Your task to perform on an android device: Open Chrome and go to settings Image 0: 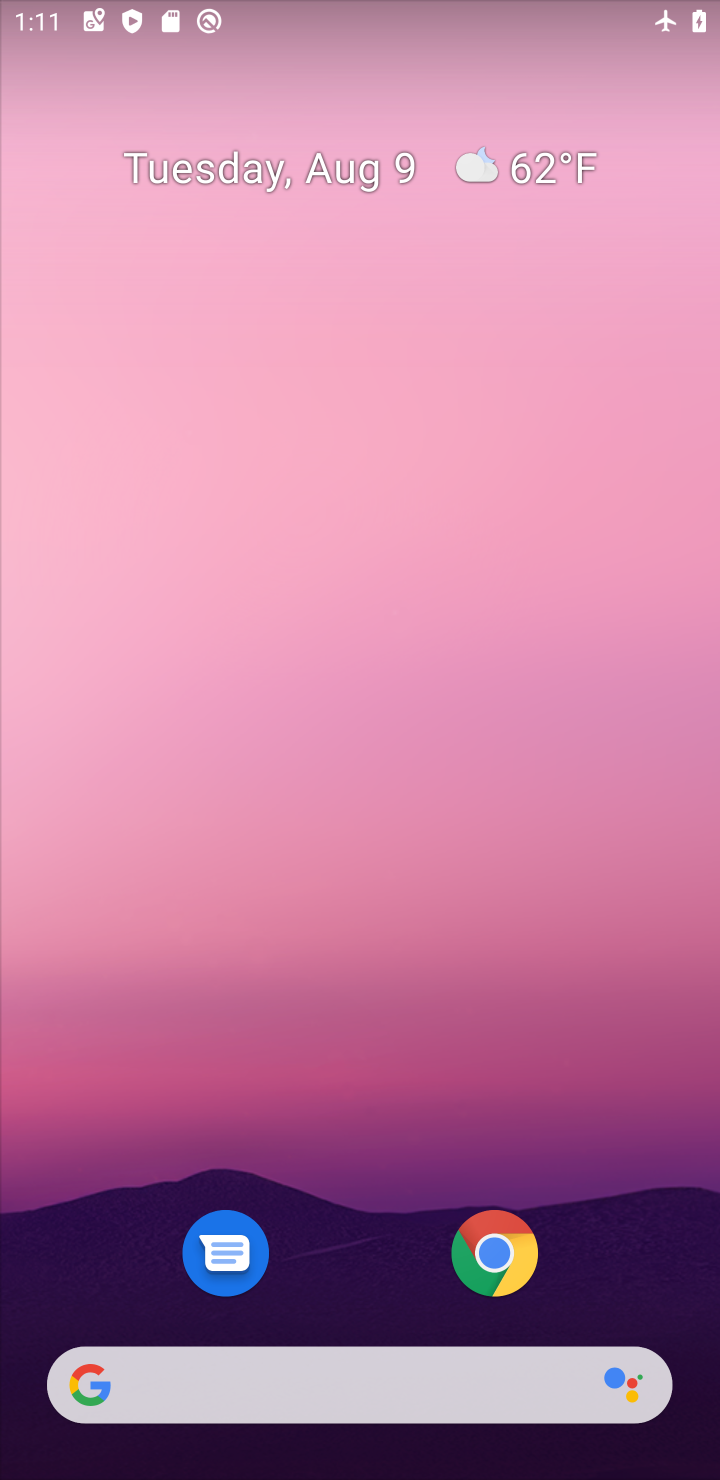
Step 0: drag from (564, 806) to (394, 17)
Your task to perform on an android device: Open Chrome and go to settings Image 1: 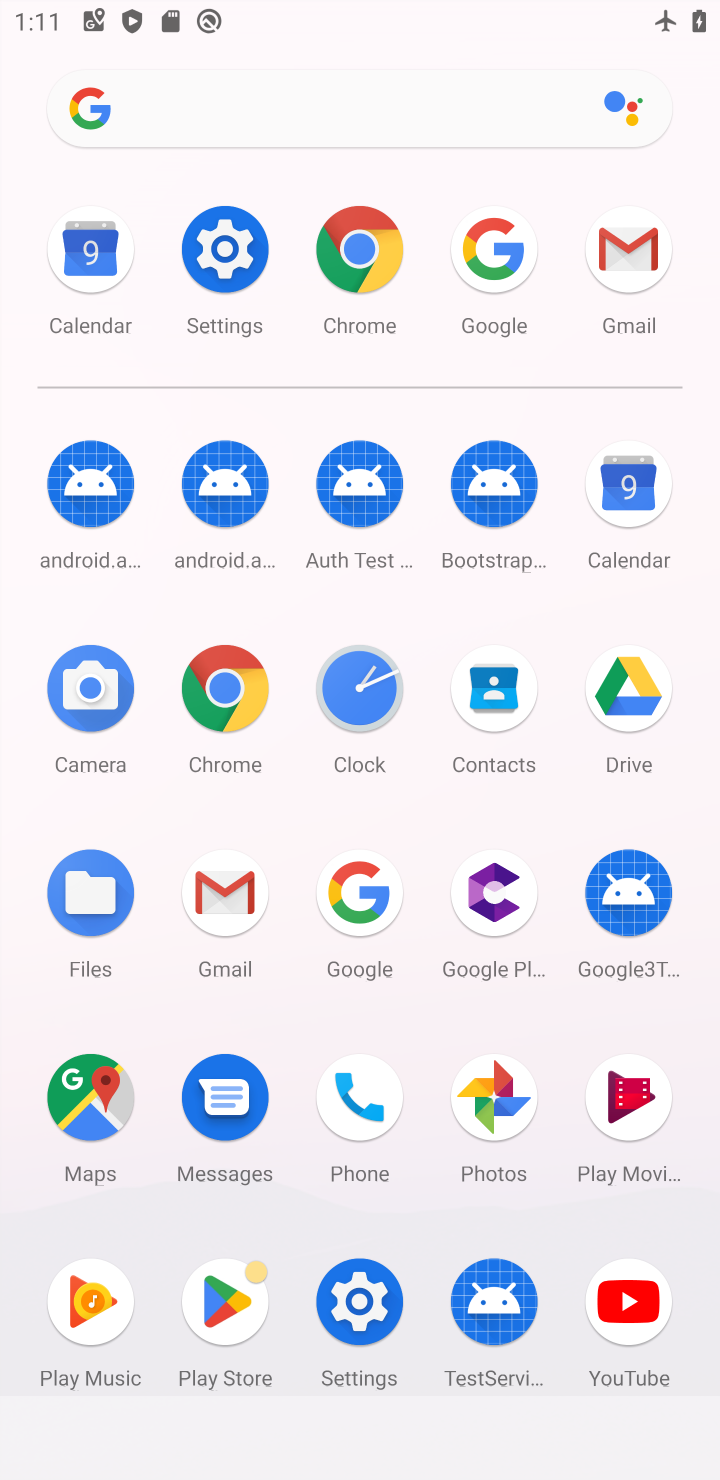
Step 1: click (359, 262)
Your task to perform on an android device: Open Chrome and go to settings Image 2: 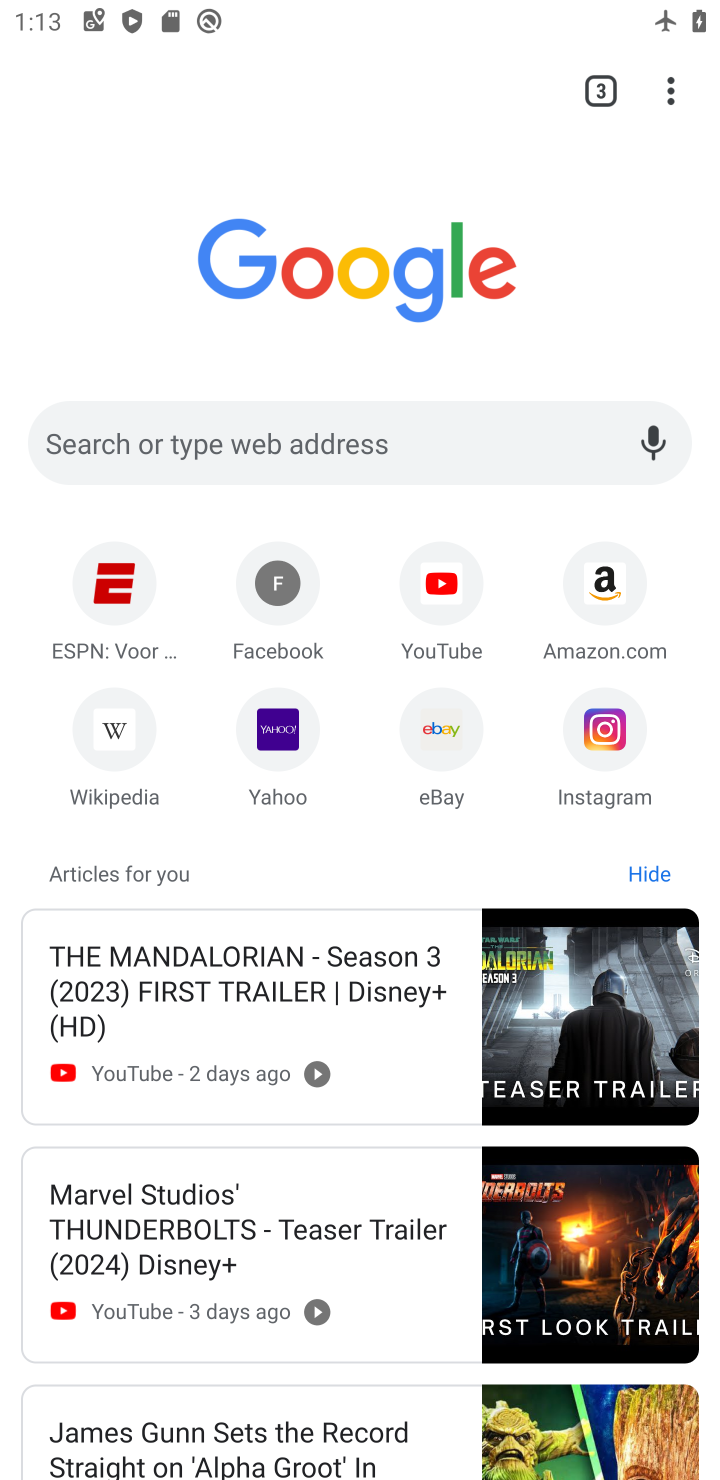
Step 2: click (671, 83)
Your task to perform on an android device: Open Chrome and go to settings Image 3: 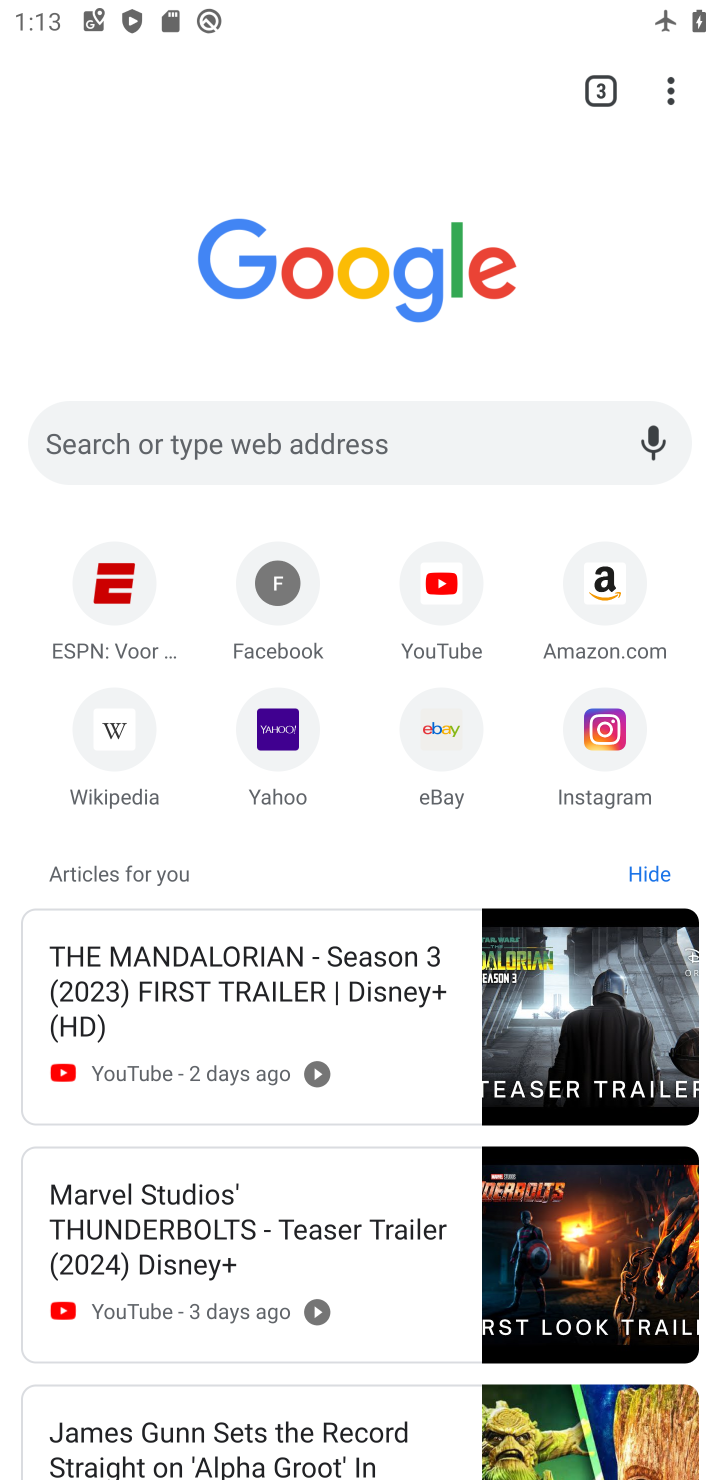
Step 3: click (673, 81)
Your task to perform on an android device: Open Chrome and go to settings Image 4: 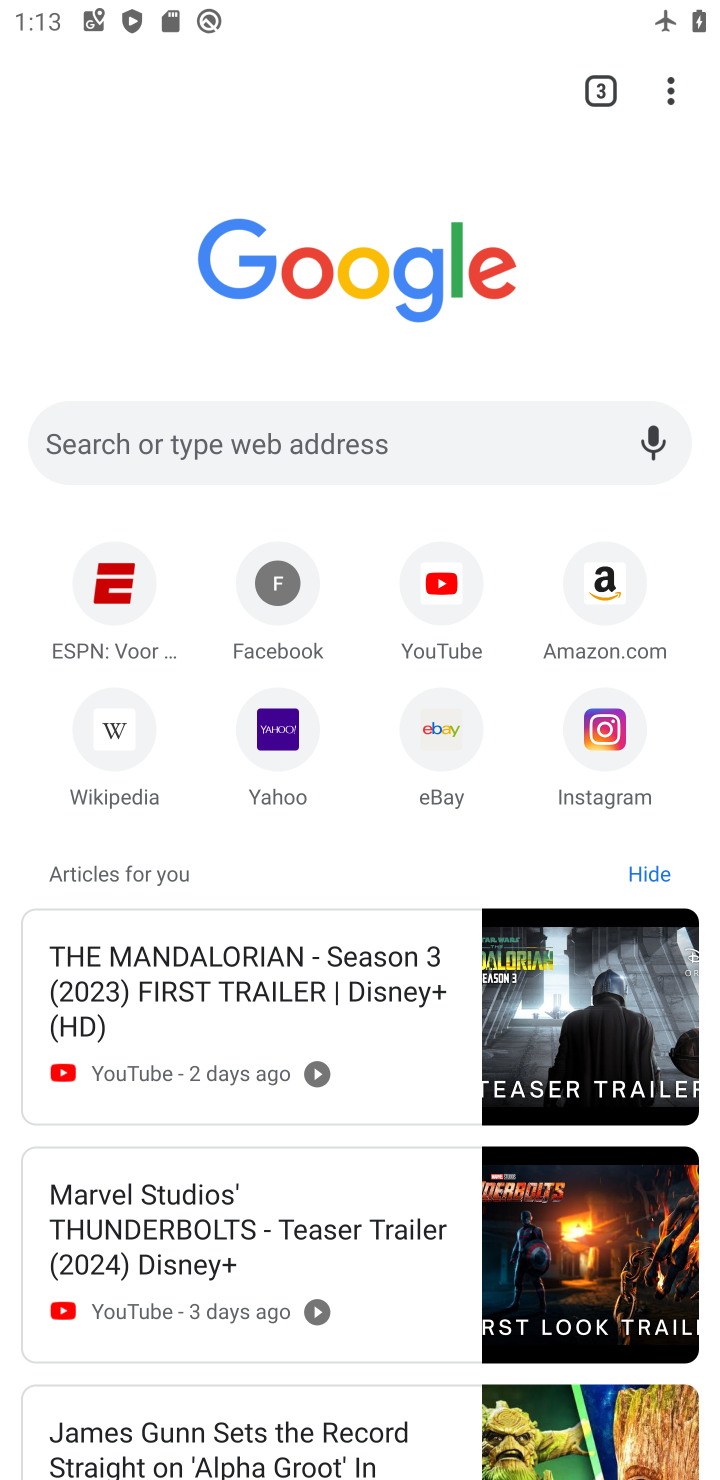
Step 4: click (673, 81)
Your task to perform on an android device: Open Chrome and go to settings Image 5: 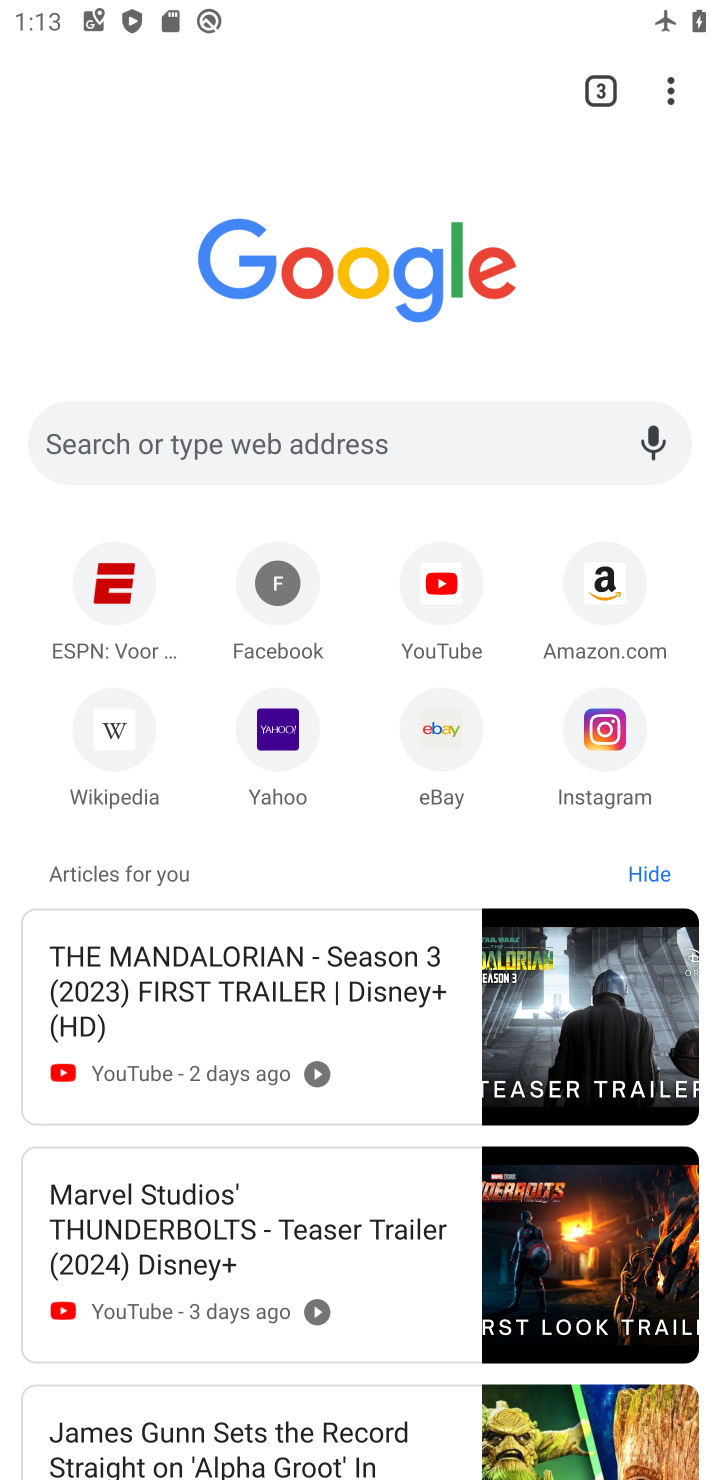
Step 5: click (667, 80)
Your task to perform on an android device: Open Chrome and go to settings Image 6: 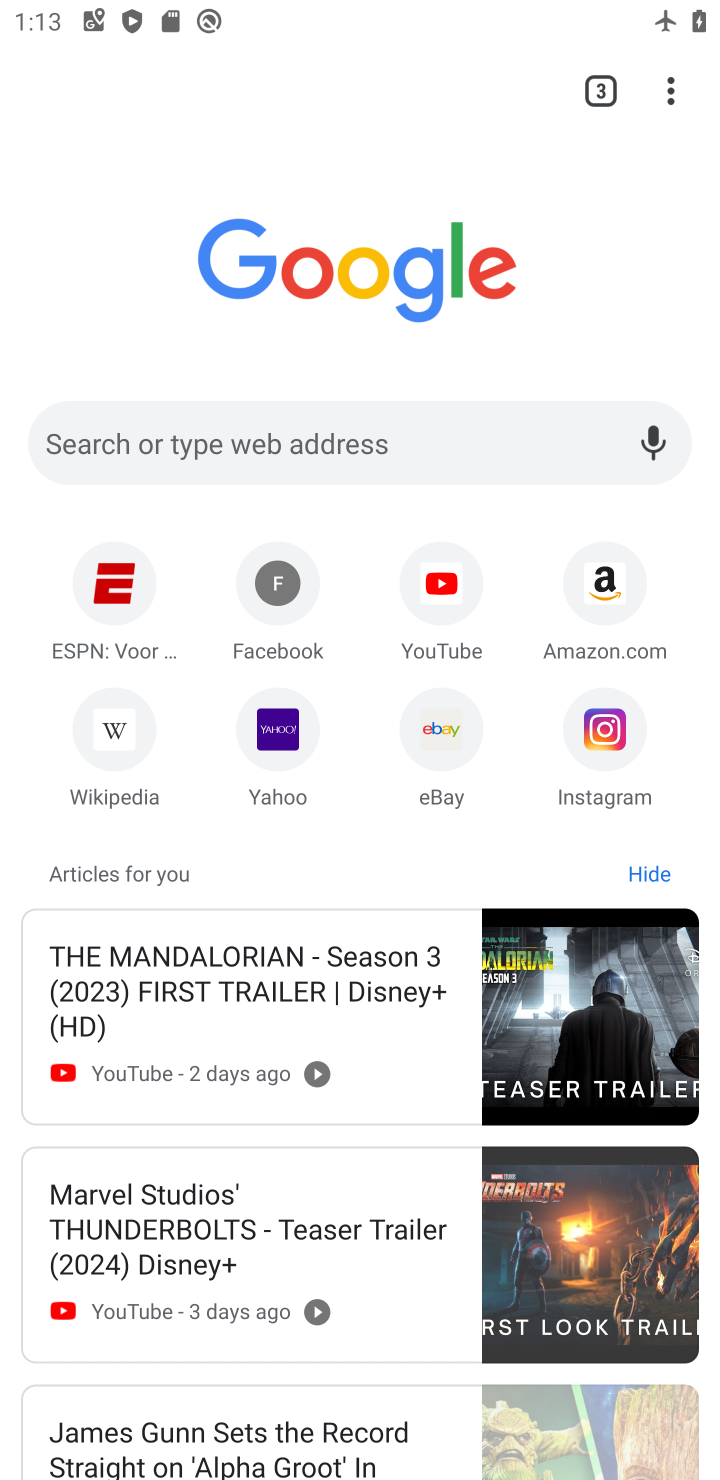
Step 6: click (667, 80)
Your task to perform on an android device: Open Chrome and go to settings Image 7: 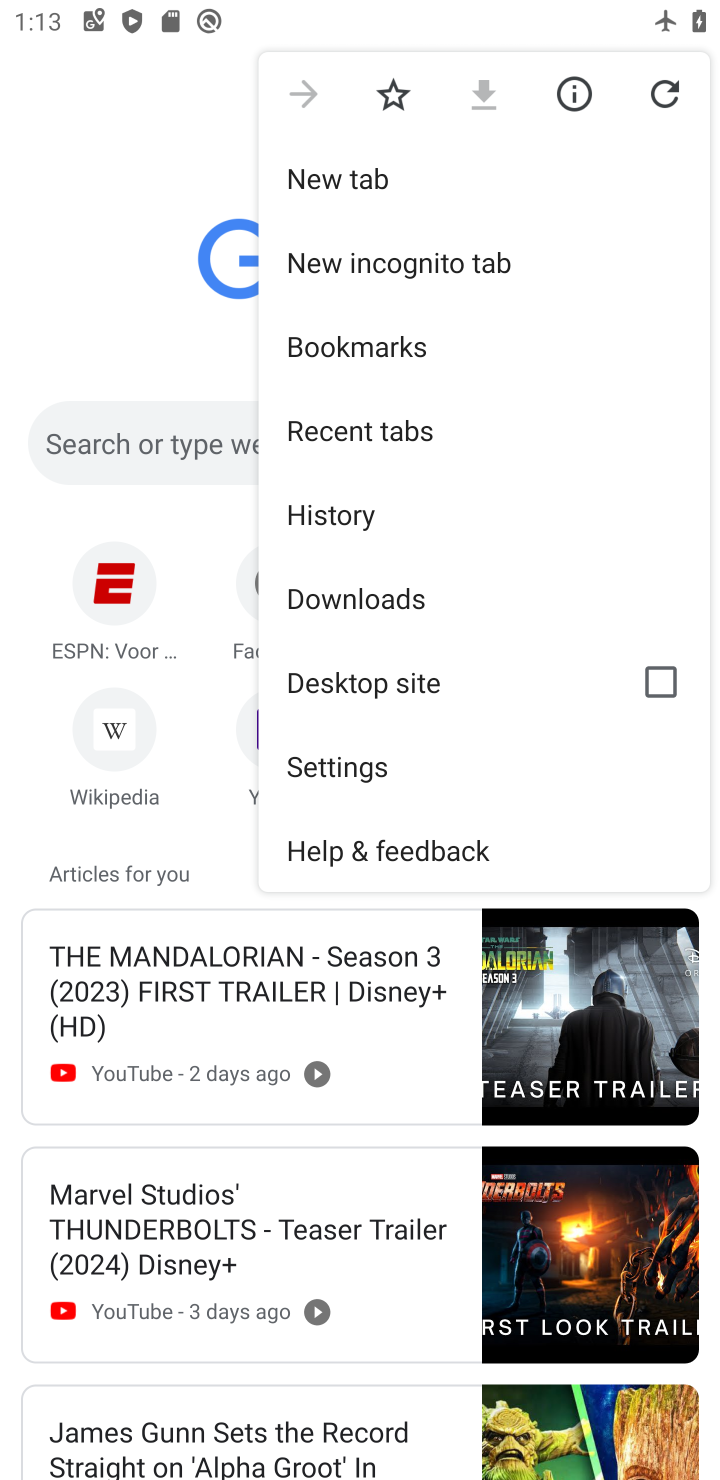
Step 7: click (367, 780)
Your task to perform on an android device: Open Chrome and go to settings Image 8: 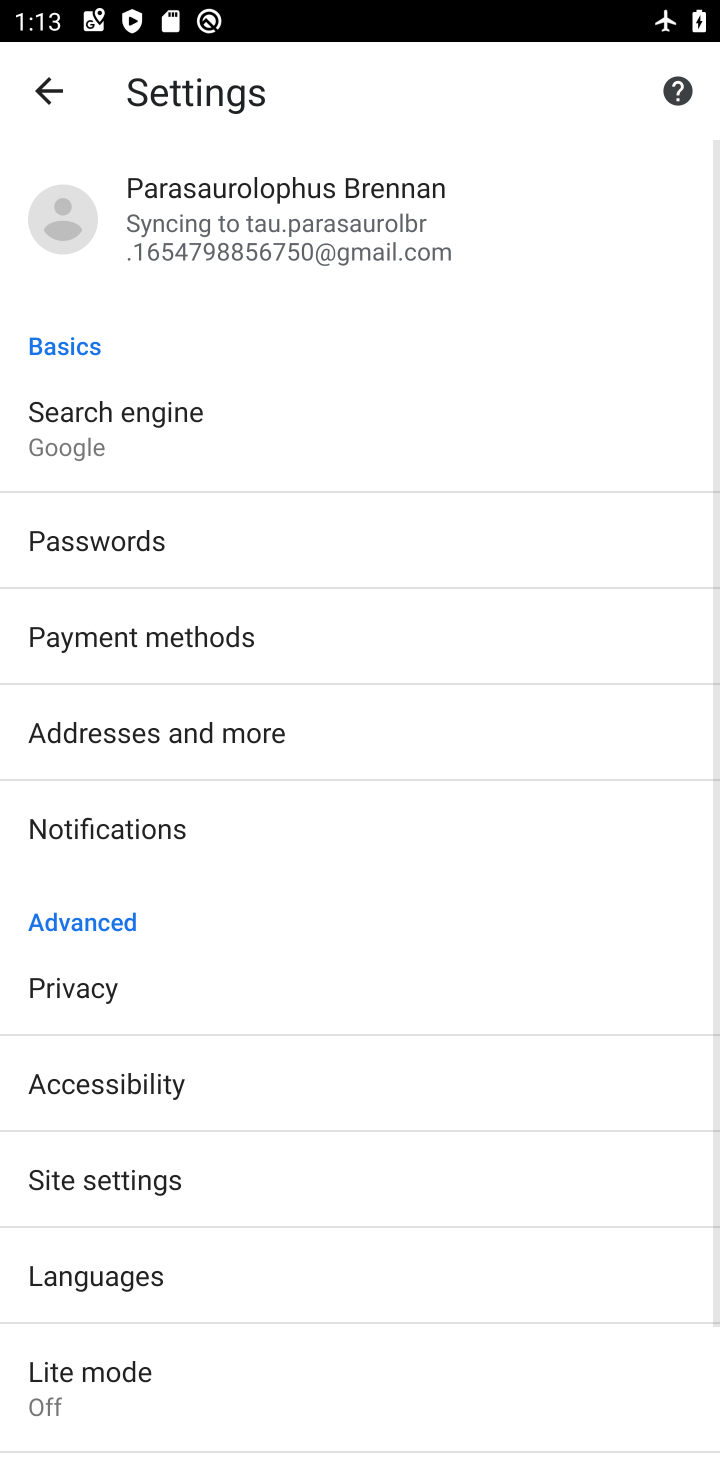
Step 8: task complete